Your task to perform on an android device: turn off data saver in the chrome app Image 0: 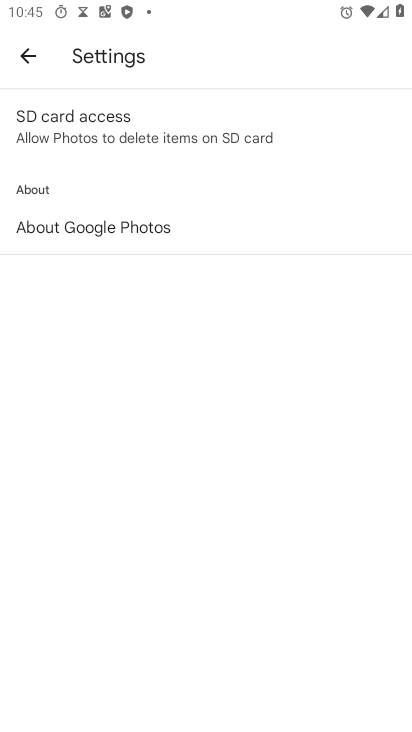
Step 0: click (401, 314)
Your task to perform on an android device: turn off data saver in the chrome app Image 1: 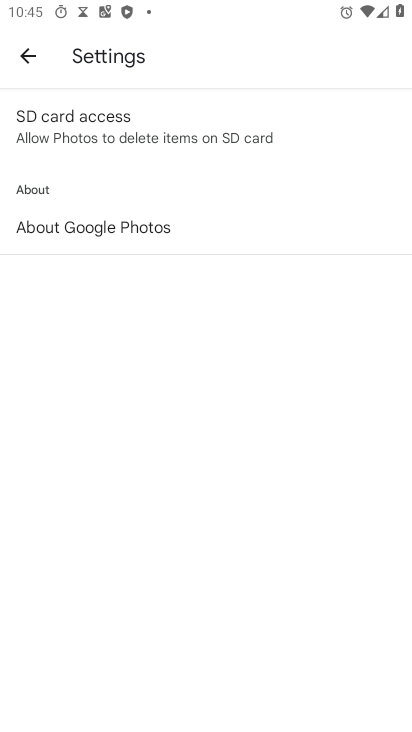
Step 1: press home button
Your task to perform on an android device: turn off data saver in the chrome app Image 2: 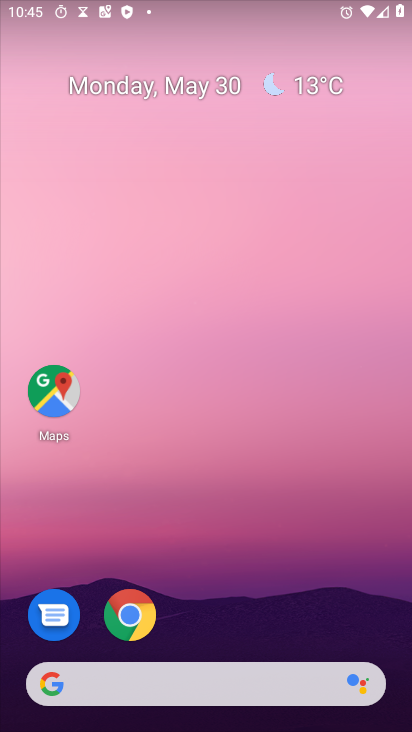
Step 2: drag from (381, 593) to (405, 117)
Your task to perform on an android device: turn off data saver in the chrome app Image 3: 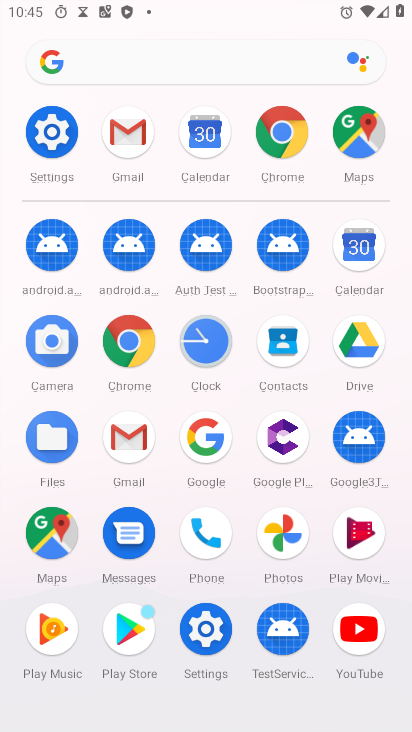
Step 3: click (288, 145)
Your task to perform on an android device: turn off data saver in the chrome app Image 4: 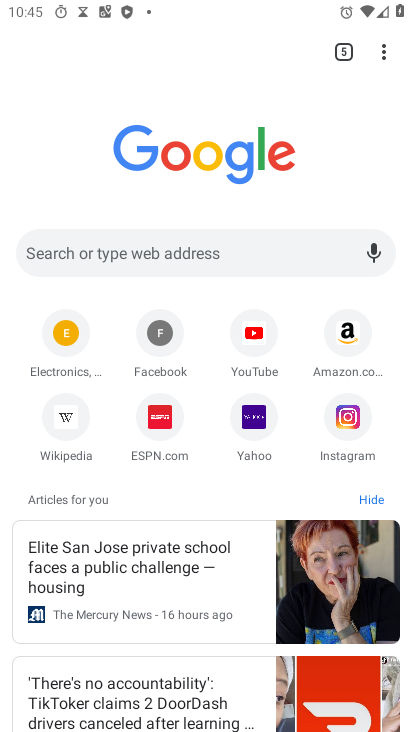
Step 4: drag from (381, 57) to (172, 436)
Your task to perform on an android device: turn off data saver in the chrome app Image 5: 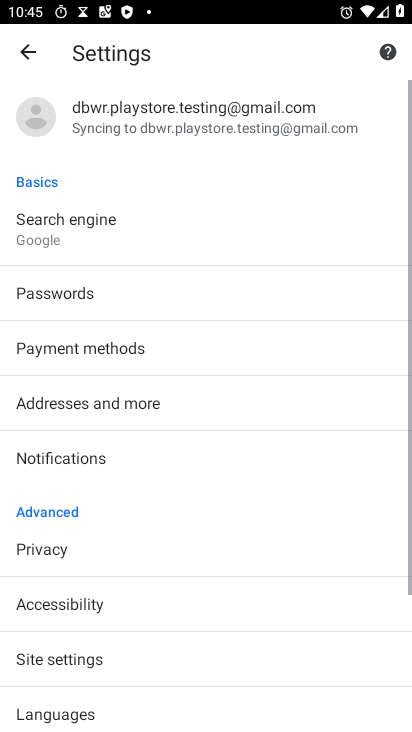
Step 5: drag from (221, 577) to (295, 190)
Your task to perform on an android device: turn off data saver in the chrome app Image 6: 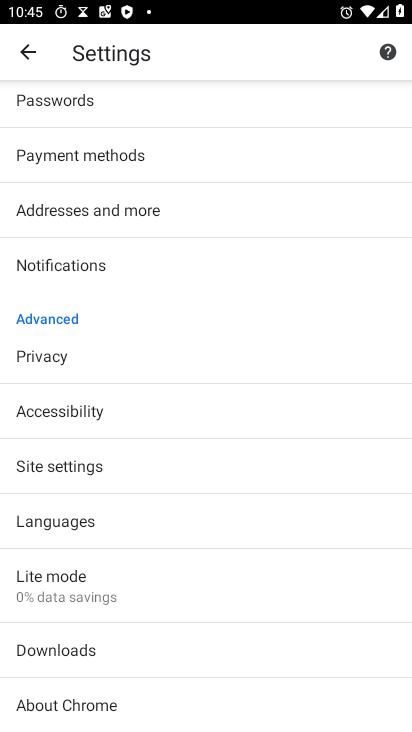
Step 6: click (92, 590)
Your task to perform on an android device: turn off data saver in the chrome app Image 7: 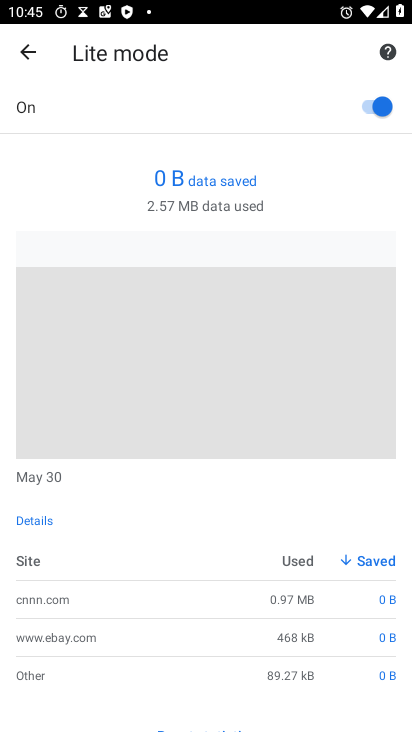
Step 7: click (365, 103)
Your task to perform on an android device: turn off data saver in the chrome app Image 8: 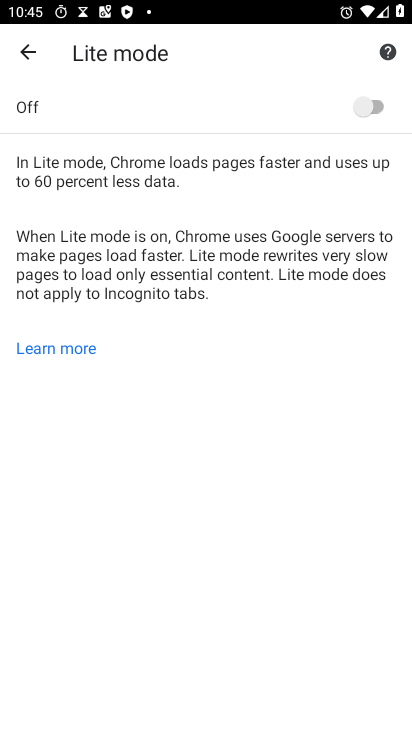
Step 8: task complete